Your task to perform on an android device: Open calendar and show me the second week of next month Image 0: 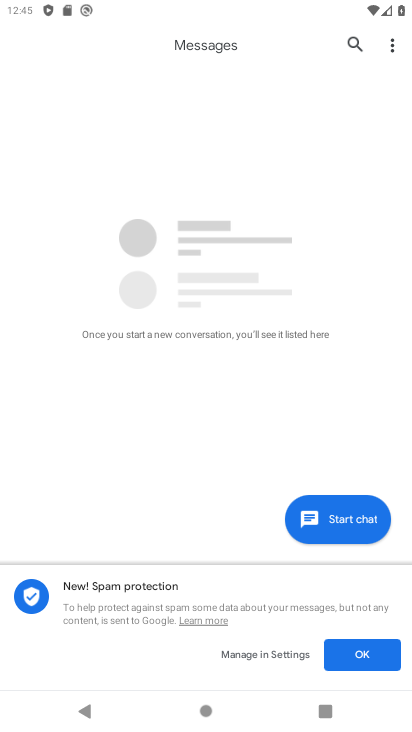
Step 0: press home button
Your task to perform on an android device: Open calendar and show me the second week of next month Image 1: 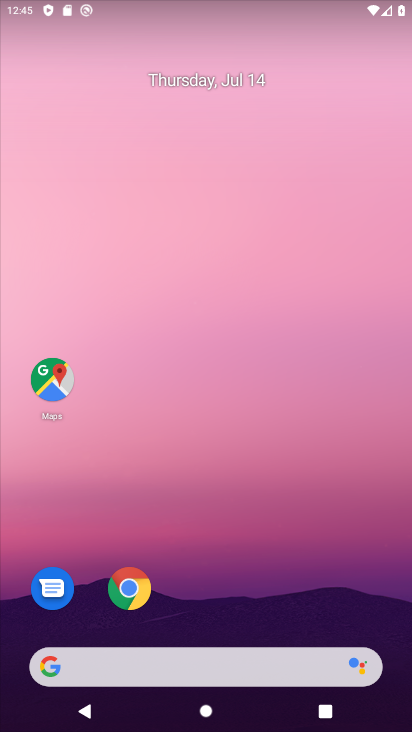
Step 1: drag from (261, 675) to (339, 129)
Your task to perform on an android device: Open calendar and show me the second week of next month Image 2: 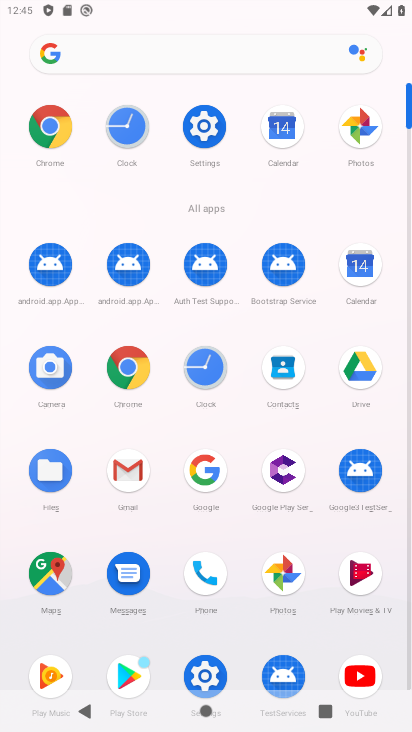
Step 2: click (355, 284)
Your task to perform on an android device: Open calendar and show me the second week of next month Image 3: 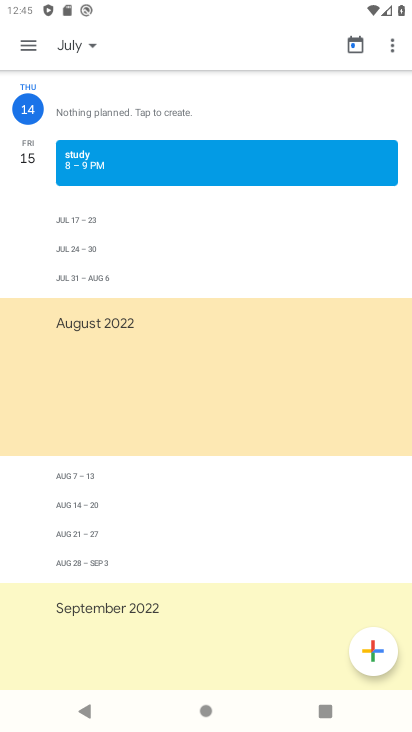
Step 3: click (67, 40)
Your task to perform on an android device: Open calendar and show me the second week of next month Image 4: 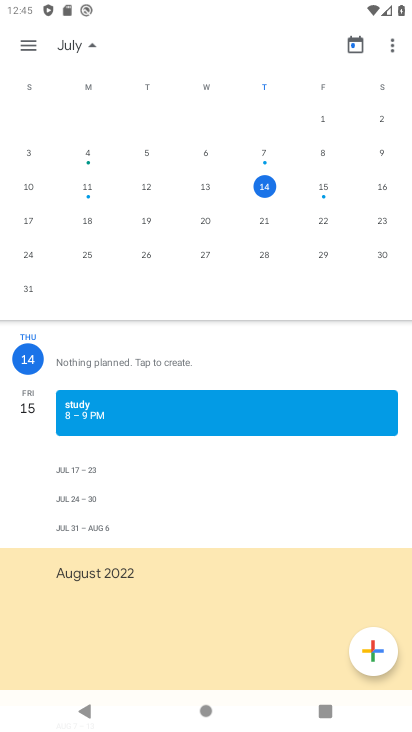
Step 4: drag from (342, 186) to (10, 187)
Your task to perform on an android device: Open calendar and show me the second week of next month Image 5: 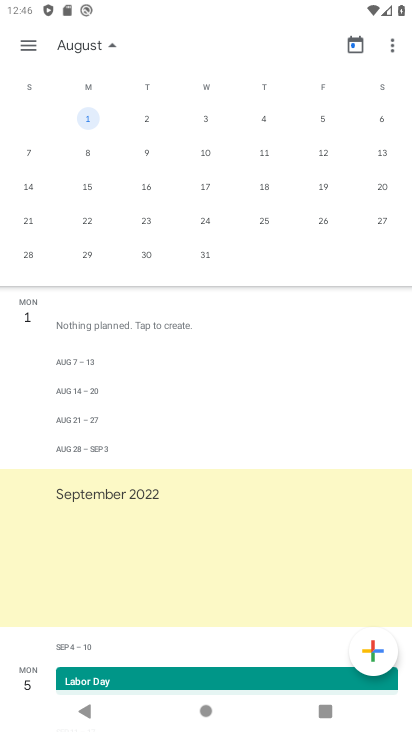
Step 5: click (26, 152)
Your task to perform on an android device: Open calendar and show me the second week of next month Image 6: 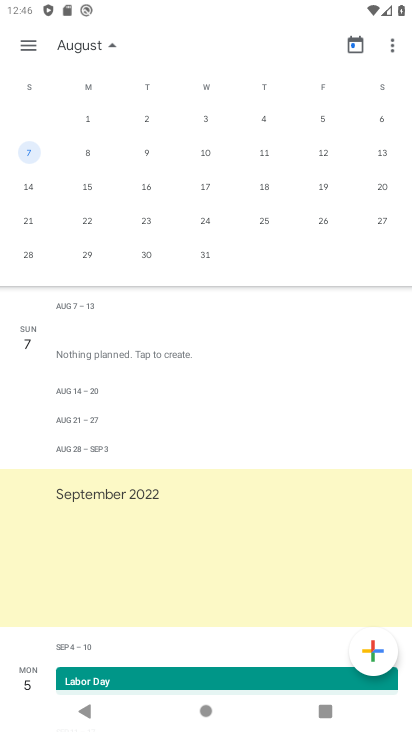
Step 6: task complete